Your task to perform on an android device: Search for Mexican restaurants on Maps Image 0: 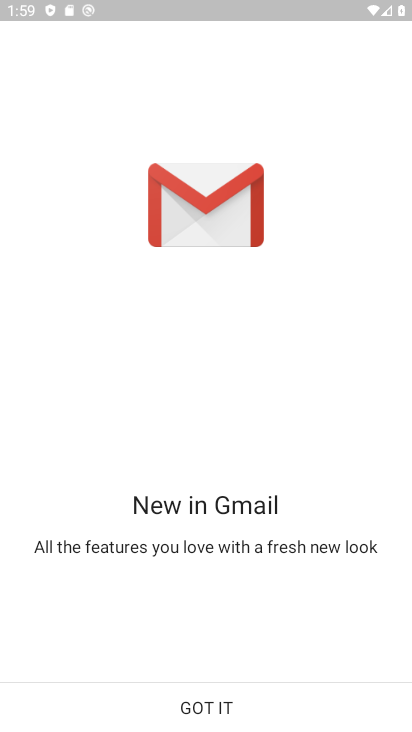
Step 0: press home button
Your task to perform on an android device: Search for Mexican restaurants on Maps Image 1: 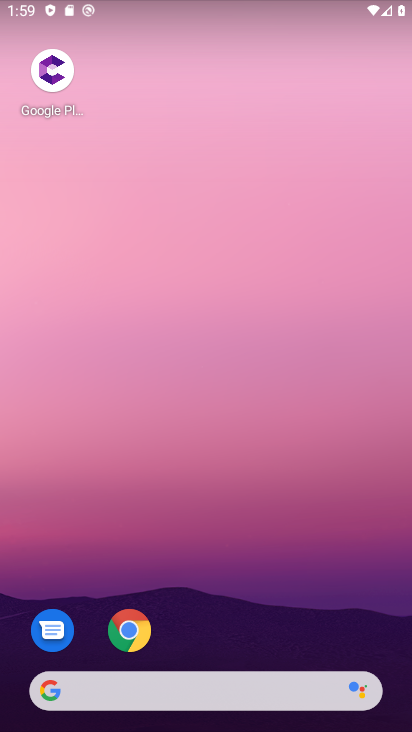
Step 1: drag from (197, 660) to (130, 3)
Your task to perform on an android device: Search for Mexican restaurants on Maps Image 2: 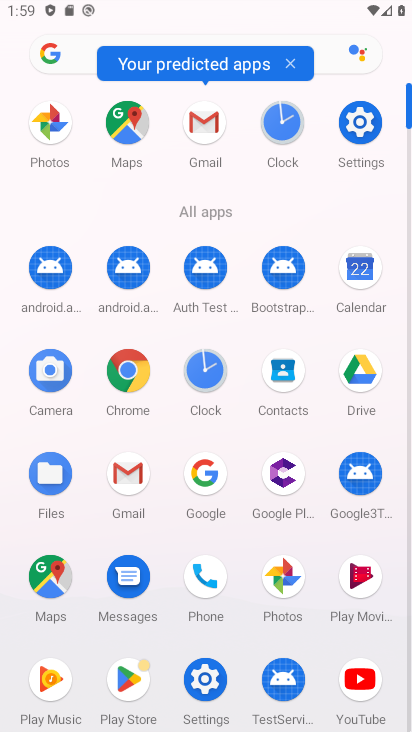
Step 2: click (59, 592)
Your task to perform on an android device: Search for Mexican restaurants on Maps Image 3: 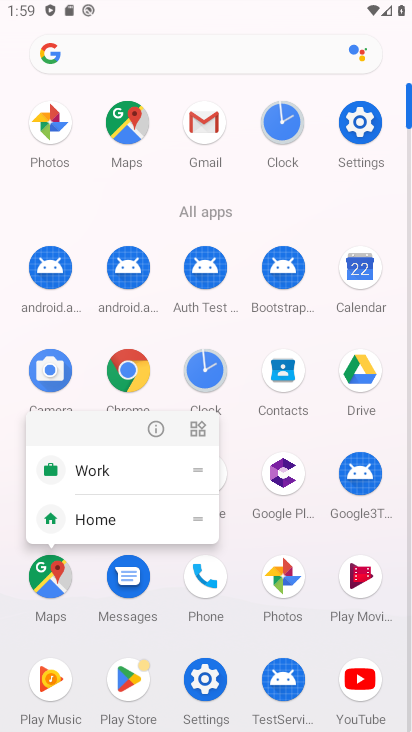
Step 3: click (52, 569)
Your task to perform on an android device: Search for Mexican restaurants on Maps Image 4: 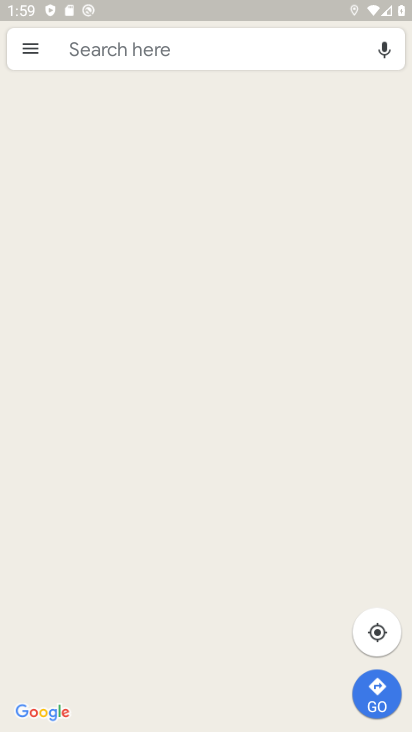
Step 4: click (211, 62)
Your task to perform on an android device: Search for Mexican restaurants on Maps Image 5: 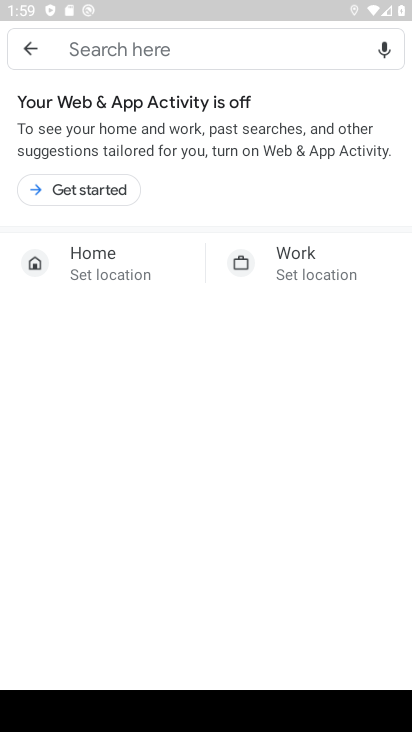
Step 5: type "Mexican restaurants"
Your task to perform on an android device: Search for Mexican restaurants on Maps Image 6: 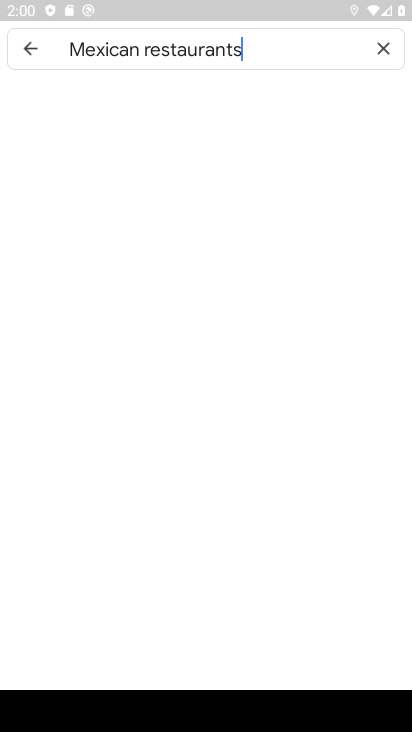
Step 6: type ""
Your task to perform on an android device: Search for Mexican restaurants on Maps Image 7: 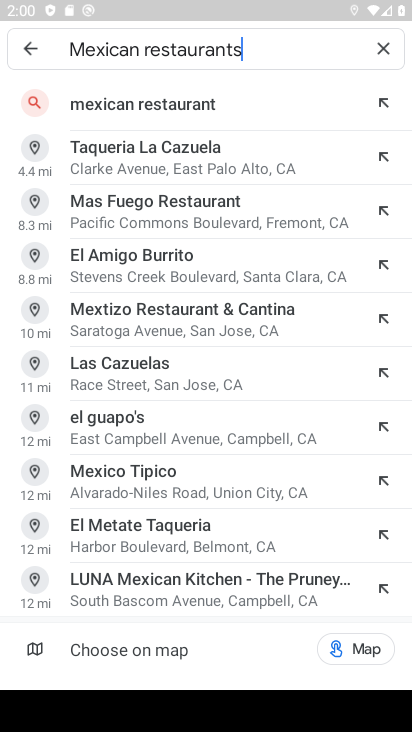
Step 7: click (160, 93)
Your task to perform on an android device: Search for Mexican restaurants on Maps Image 8: 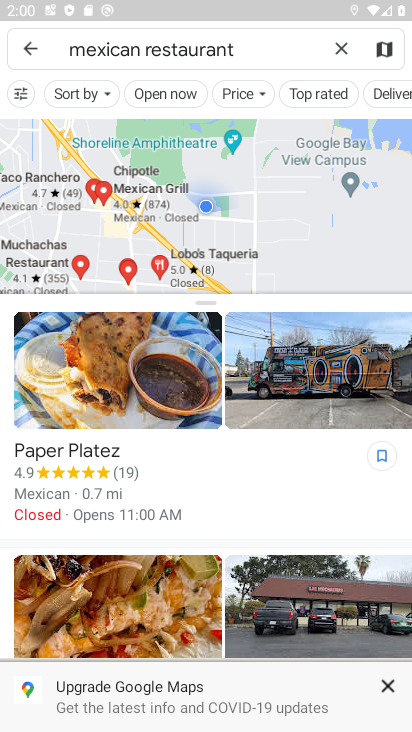
Step 8: task complete